Your task to perform on an android device: Open ESPN.com Image 0: 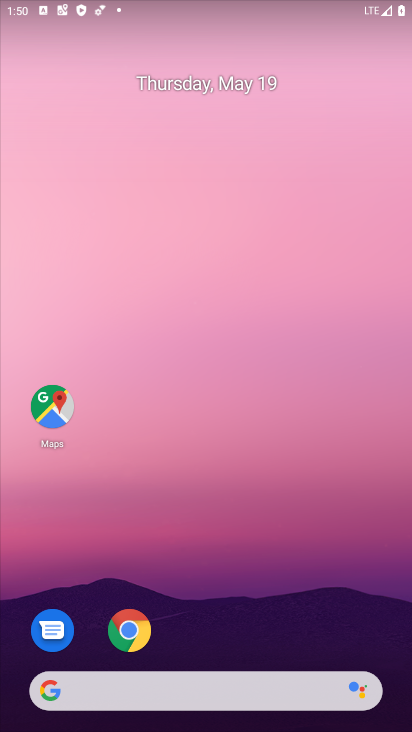
Step 0: click (134, 631)
Your task to perform on an android device: Open ESPN.com Image 1: 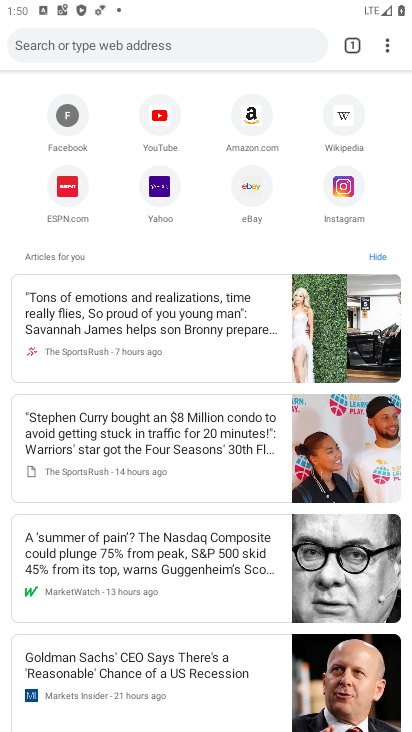
Step 1: click (122, 40)
Your task to perform on an android device: Open ESPN.com Image 2: 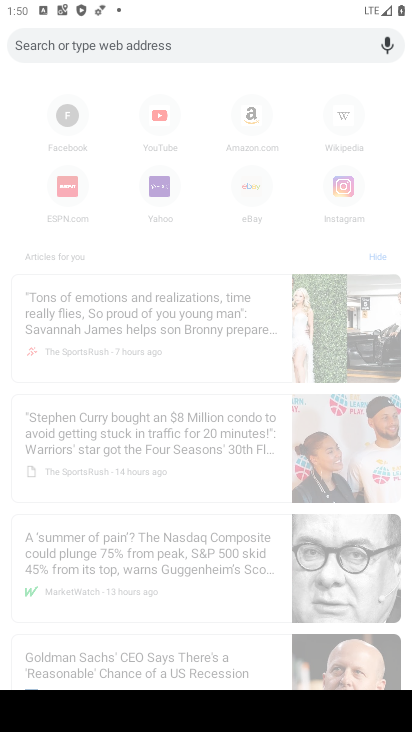
Step 2: type "espn.com"
Your task to perform on an android device: Open ESPN.com Image 3: 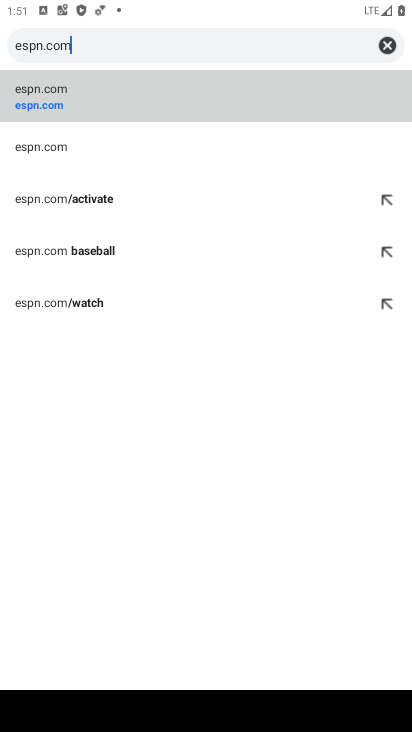
Step 3: click (61, 96)
Your task to perform on an android device: Open ESPN.com Image 4: 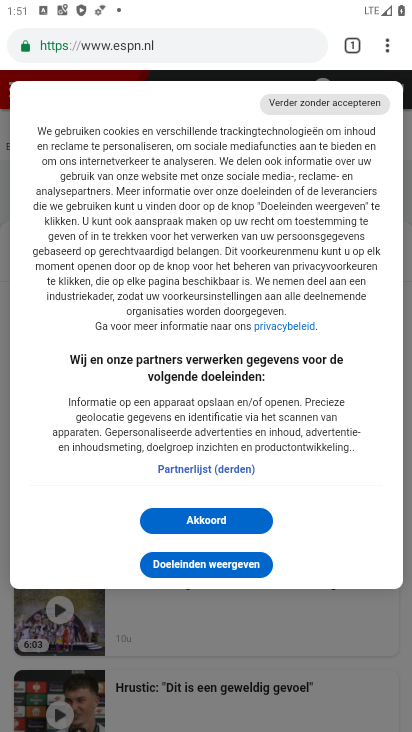
Step 4: task complete